Your task to perform on an android device: move a message to another label in the gmail app Image 0: 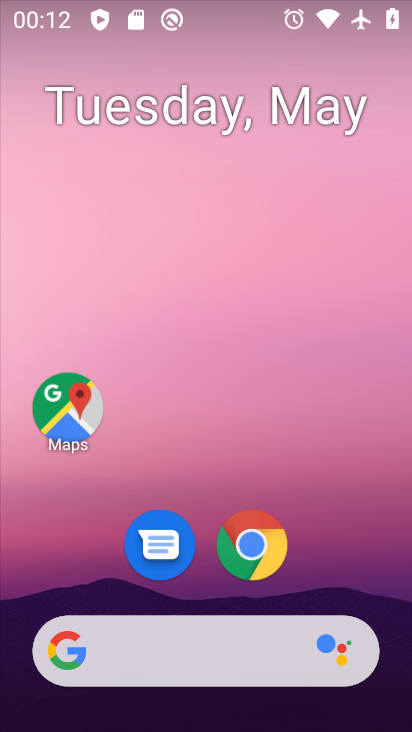
Step 0: drag from (326, 591) to (285, 45)
Your task to perform on an android device: move a message to another label in the gmail app Image 1: 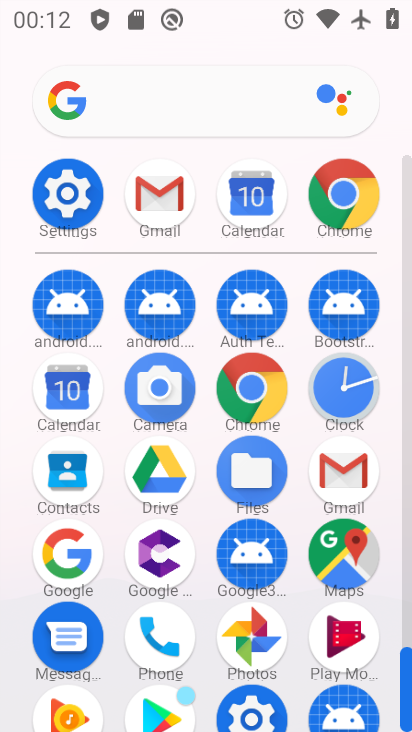
Step 1: click (329, 457)
Your task to perform on an android device: move a message to another label in the gmail app Image 2: 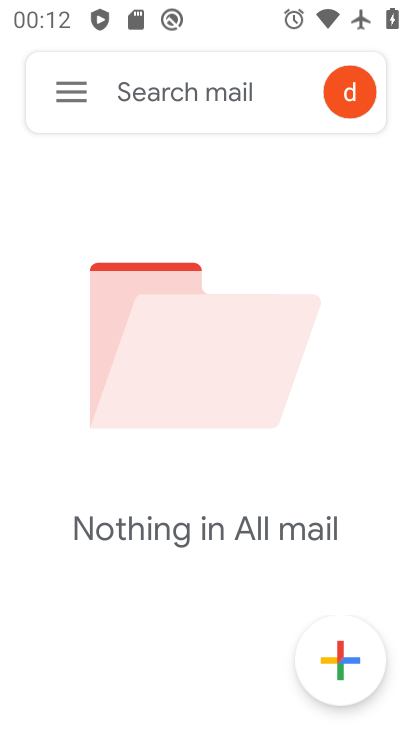
Step 2: click (85, 95)
Your task to perform on an android device: move a message to another label in the gmail app Image 3: 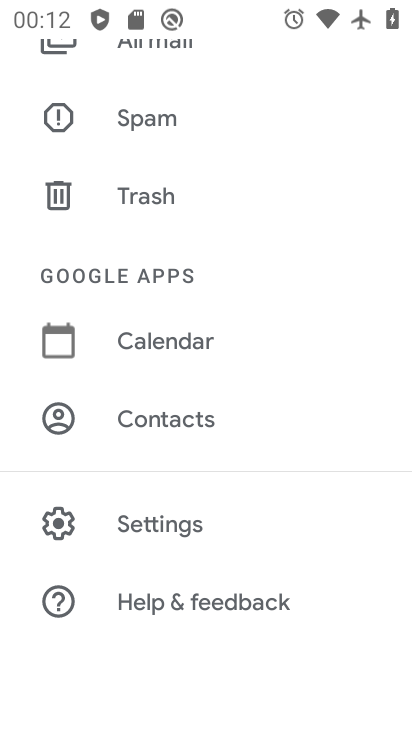
Step 3: drag from (173, 130) to (245, 305)
Your task to perform on an android device: move a message to another label in the gmail app Image 4: 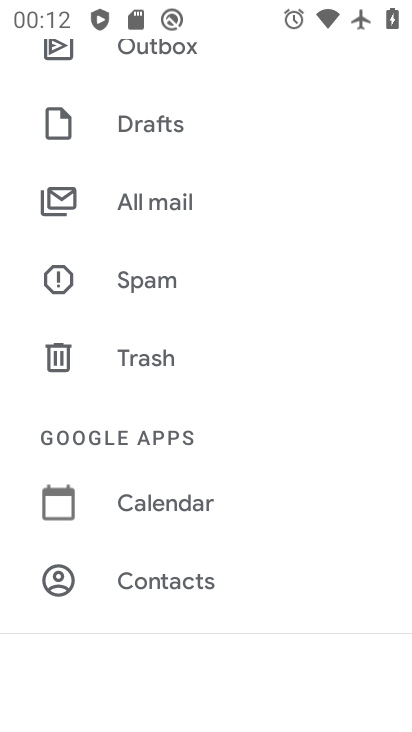
Step 4: click (200, 197)
Your task to perform on an android device: move a message to another label in the gmail app Image 5: 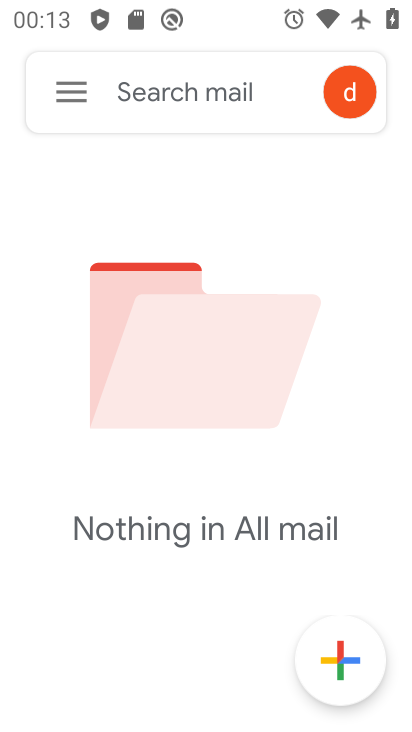
Step 5: task complete